Your task to perform on an android device: Go to eBay Image 0: 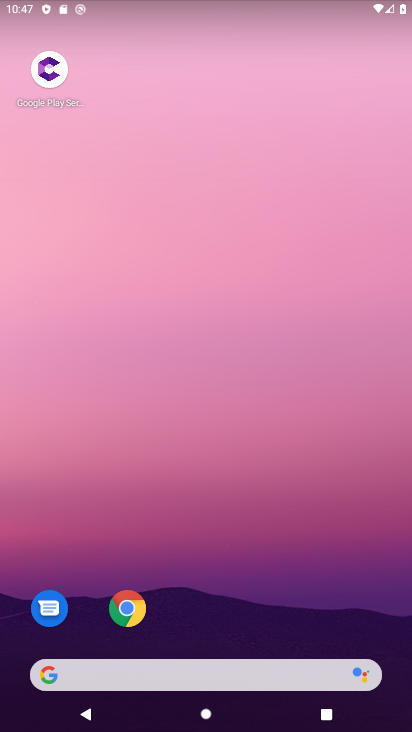
Step 0: click (128, 610)
Your task to perform on an android device: Go to eBay Image 1: 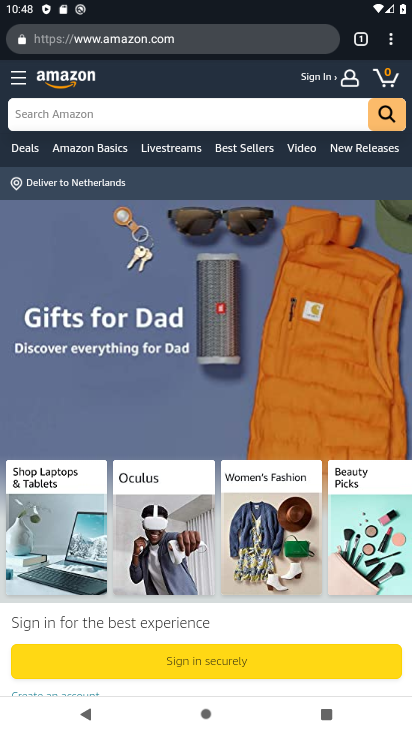
Step 1: click (364, 38)
Your task to perform on an android device: Go to eBay Image 2: 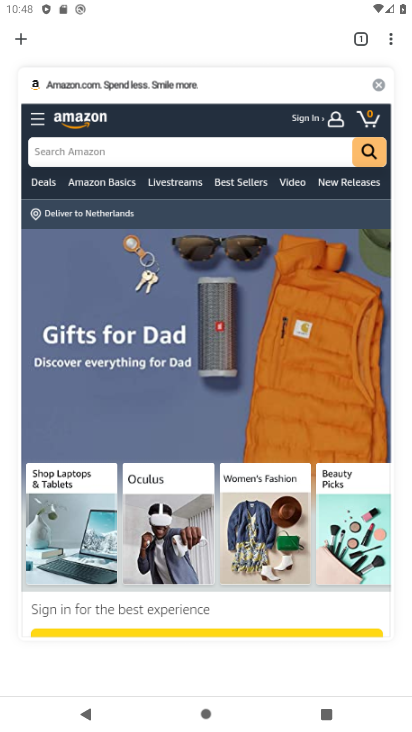
Step 2: click (15, 40)
Your task to perform on an android device: Go to eBay Image 3: 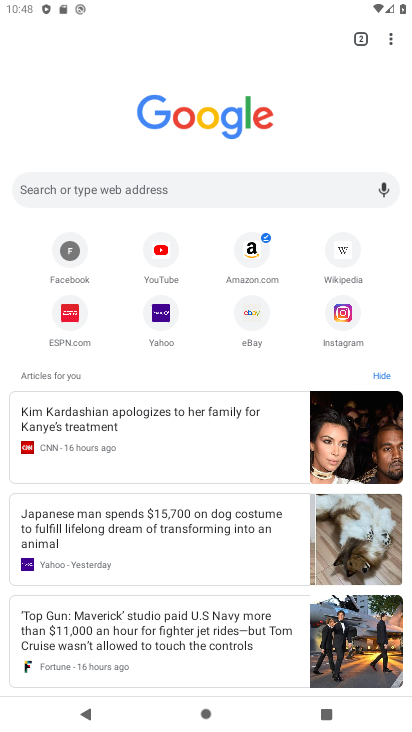
Step 3: click (253, 324)
Your task to perform on an android device: Go to eBay Image 4: 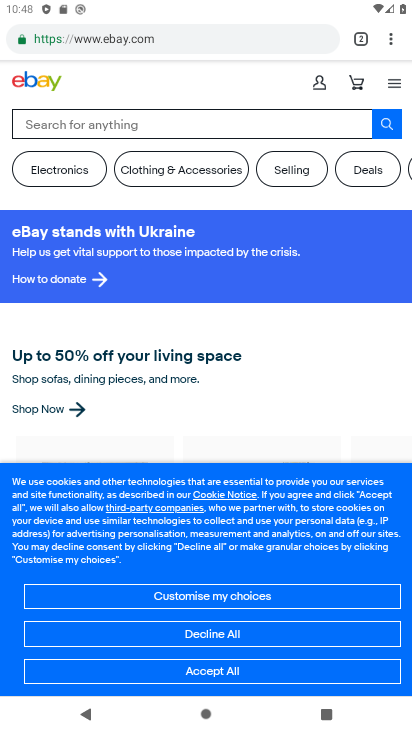
Step 4: task complete